Your task to perform on an android device: toggle improve location accuracy Image 0: 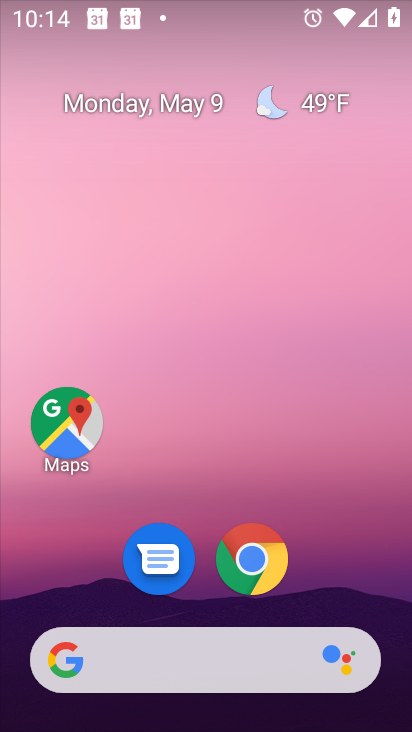
Step 0: drag from (193, 724) to (202, 86)
Your task to perform on an android device: toggle improve location accuracy Image 1: 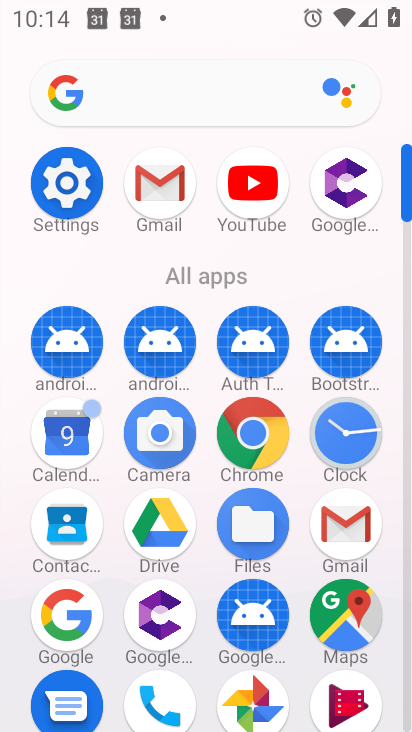
Step 1: click (62, 186)
Your task to perform on an android device: toggle improve location accuracy Image 2: 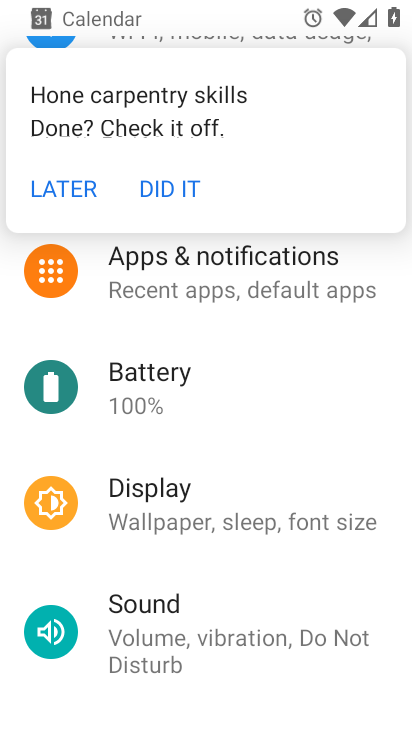
Step 2: drag from (186, 544) to (179, 249)
Your task to perform on an android device: toggle improve location accuracy Image 3: 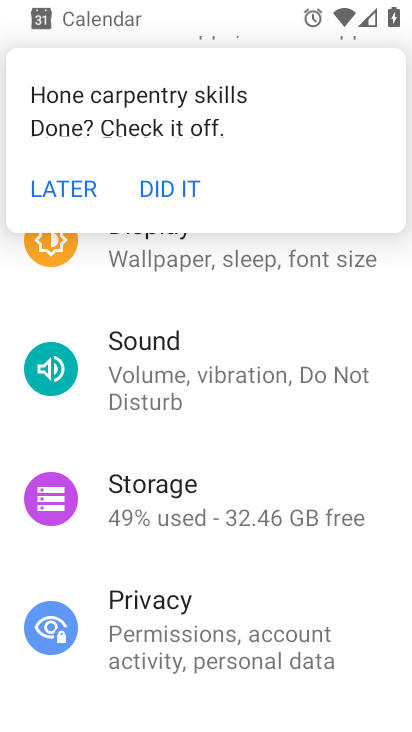
Step 3: drag from (197, 673) to (192, 374)
Your task to perform on an android device: toggle improve location accuracy Image 4: 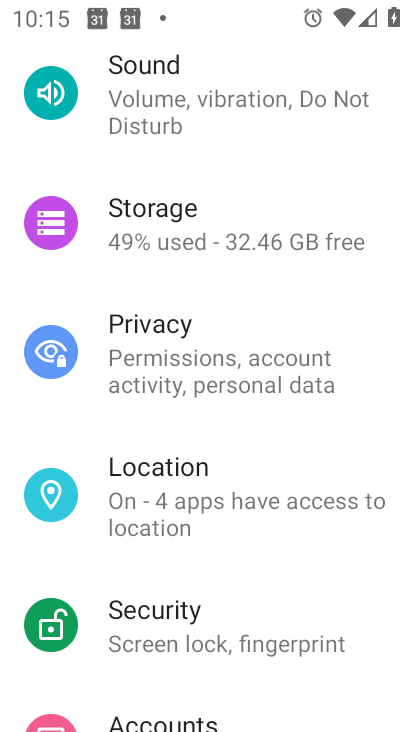
Step 4: click (181, 487)
Your task to perform on an android device: toggle improve location accuracy Image 5: 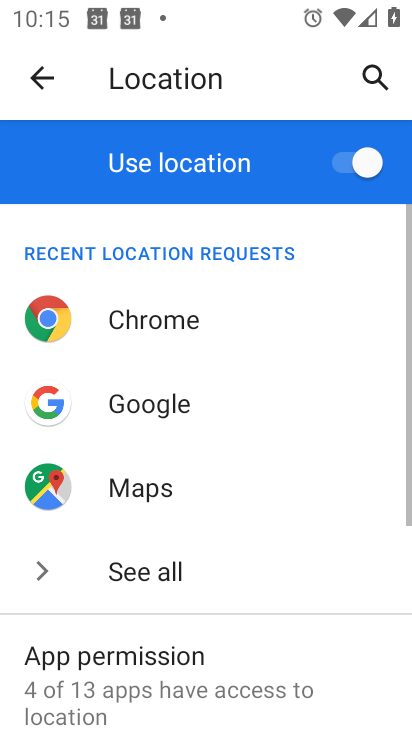
Step 5: drag from (250, 663) to (250, 354)
Your task to perform on an android device: toggle improve location accuracy Image 6: 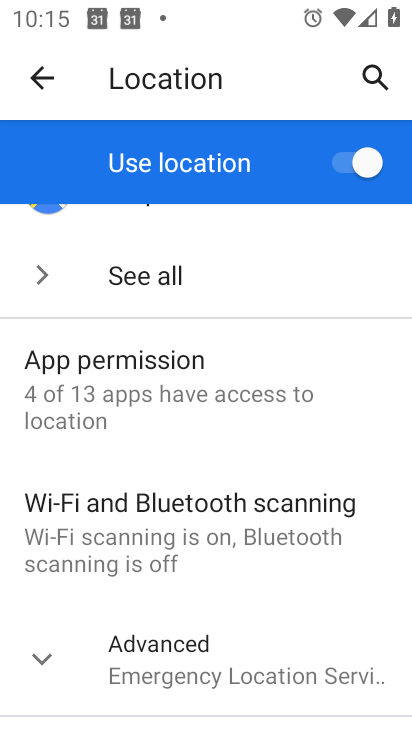
Step 6: click (167, 652)
Your task to perform on an android device: toggle improve location accuracy Image 7: 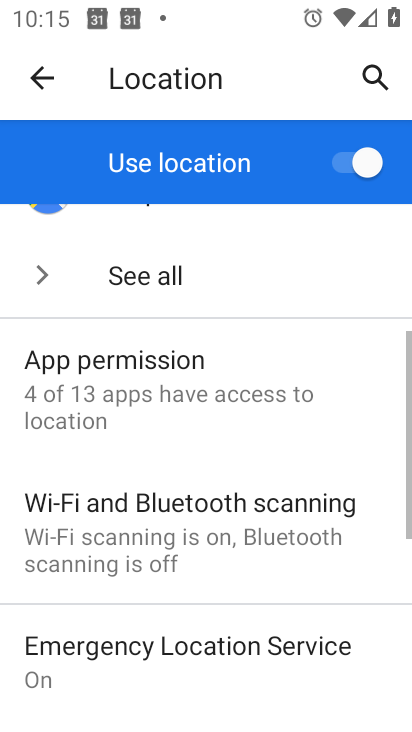
Step 7: drag from (257, 682) to (254, 315)
Your task to perform on an android device: toggle improve location accuracy Image 8: 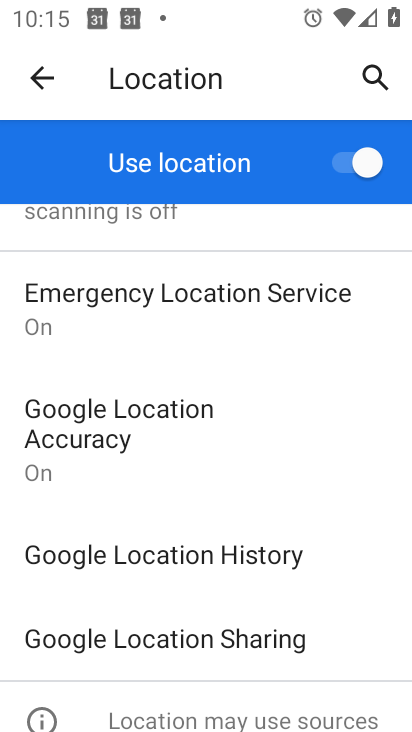
Step 8: click (118, 421)
Your task to perform on an android device: toggle improve location accuracy Image 9: 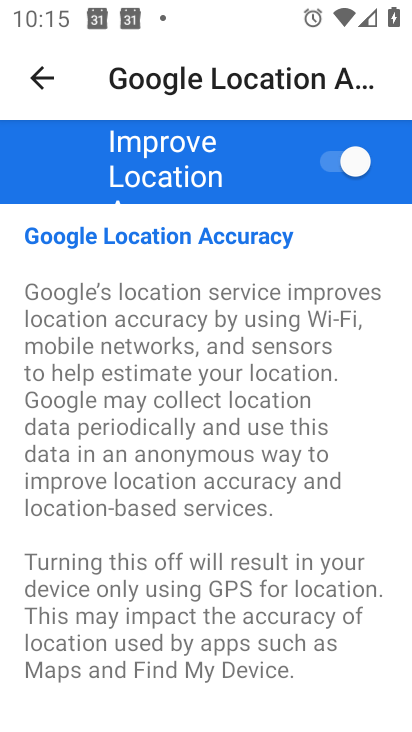
Step 9: click (327, 155)
Your task to perform on an android device: toggle improve location accuracy Image 10: 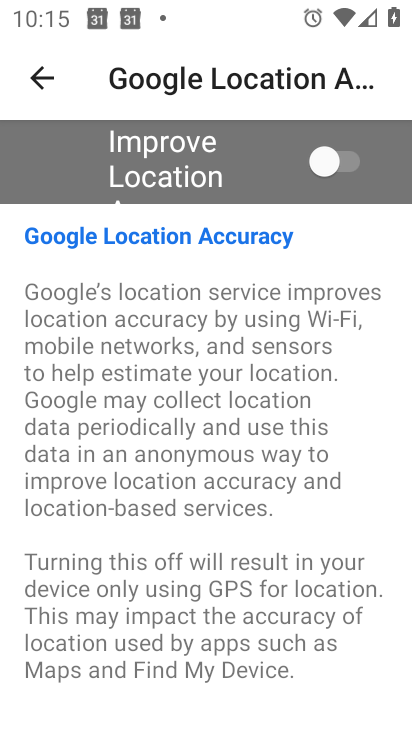
Step 10: task complete